Your task to perform on an android device: move a message to another label in the gmail app Image 0: 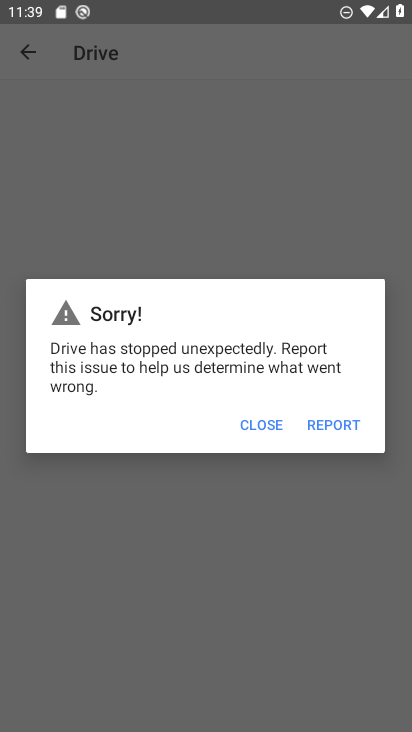
Step 0: click (273, 416)
Your task to perform on an android device: move a message to another label in the gmail app Image 1: 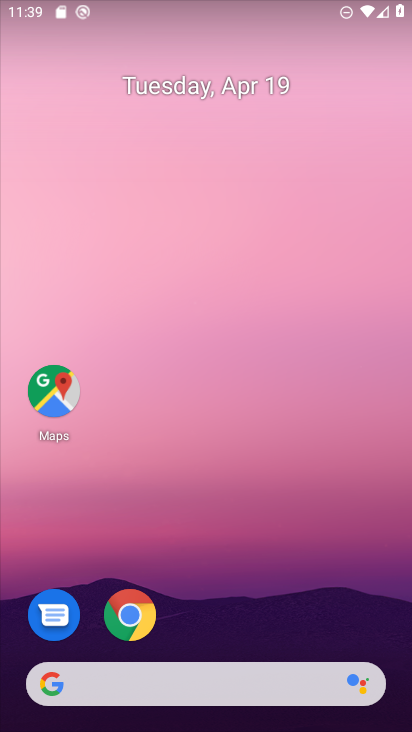
Step 1: drag from (187, 647) to (177, 311)
Your task to perform on an android device: move a message to another label in the gmail app Image 2: 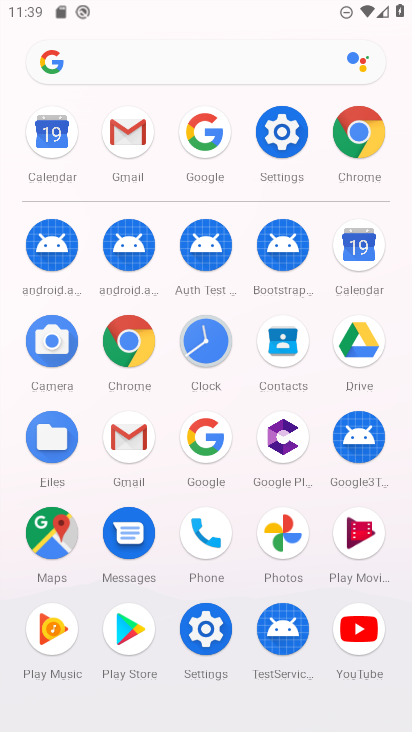
Step 2: click (132, 443)
Your task to perform on an android device: move a message to another label in the gmail app Image 3: 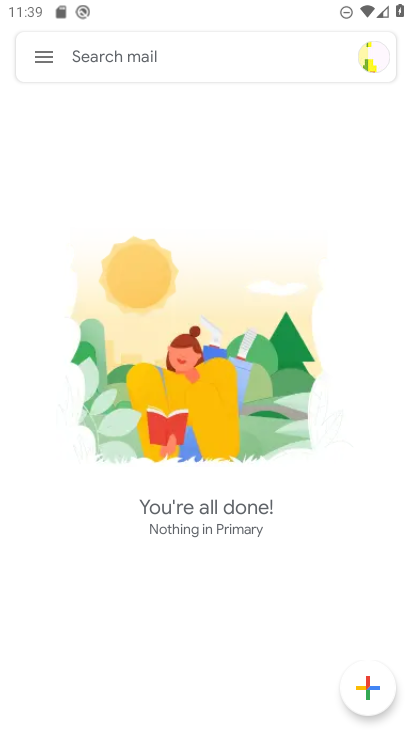
Step 3: click (42, 61)
Your task to perform on an android device: move a message to another label in the gmail app Image 4: 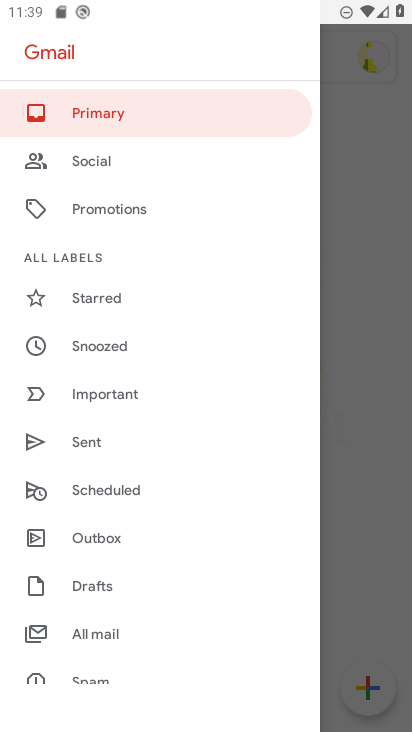
Step 4: click (97, 637)
Your task to perform on an android device: move a message to another label in the gmail app Image 5: 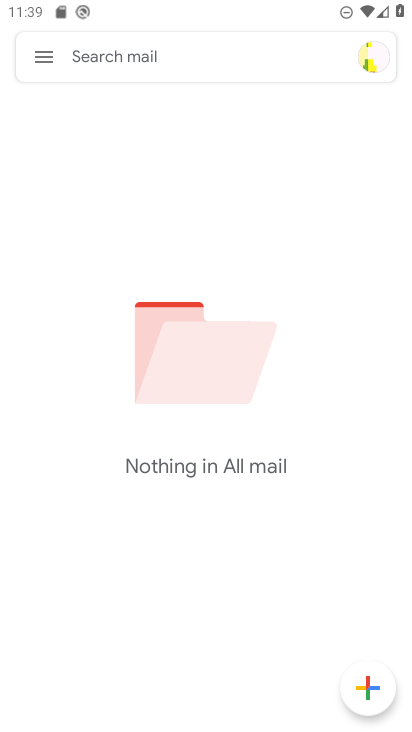
Step 5: task complete